Your task to perform on an android device: move a message to another label in the gmail app Image 0: 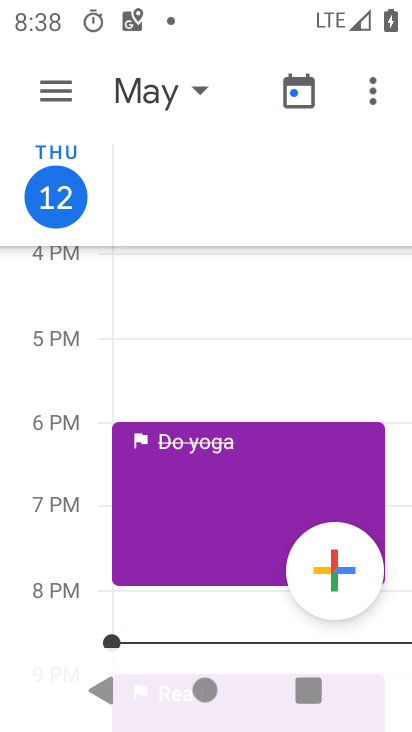
Step 0: drag from (212, 519) to (206, 237)
Your task to perform on an android device: move a message to another label in the gmail app Image 1: 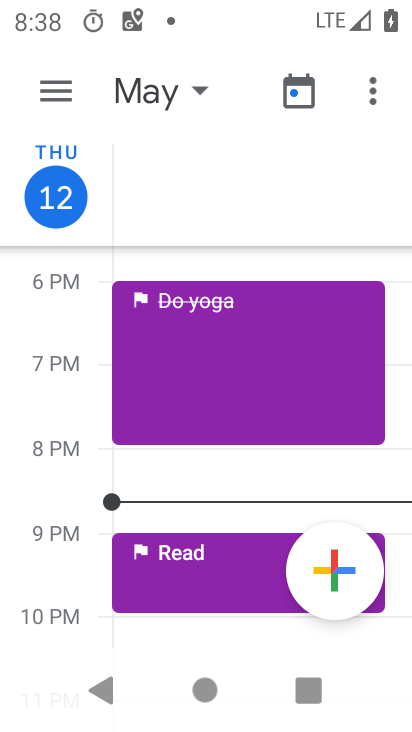
Step 1: press home button
Your task to perform on an android device: move a message to another label in the gmail app Image 2: 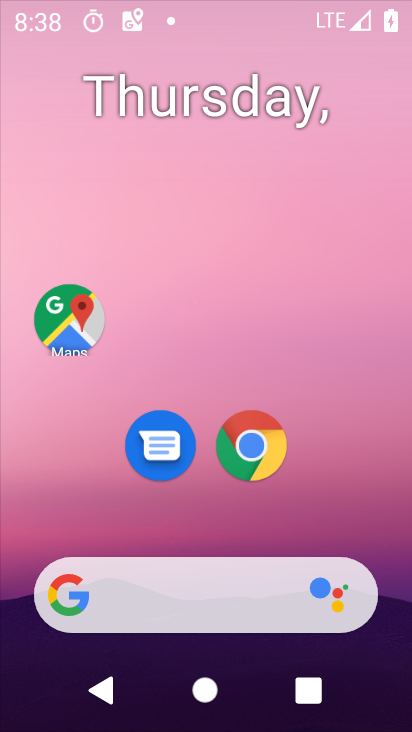
Step 2: drag from (205, 561) to (256, 139)
Your task to perform on an android device: move a message to another label in the gmail app Image 3: 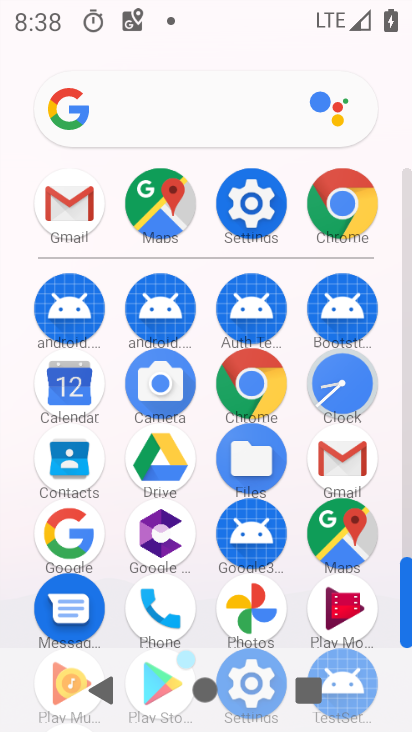
Step 3: click (337, 445)
Your task to perform on an android device: move a message to another label in the gmail app Image 4: 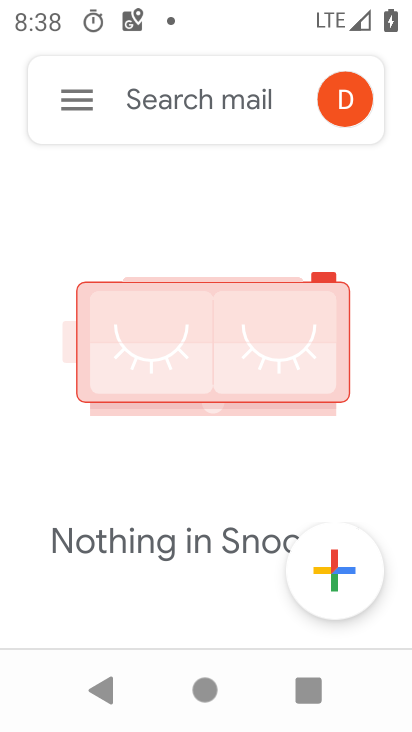
Step 4: click (93, 112)
Your task to perform on an android device: move a message to another label in the gmail app Image 5: 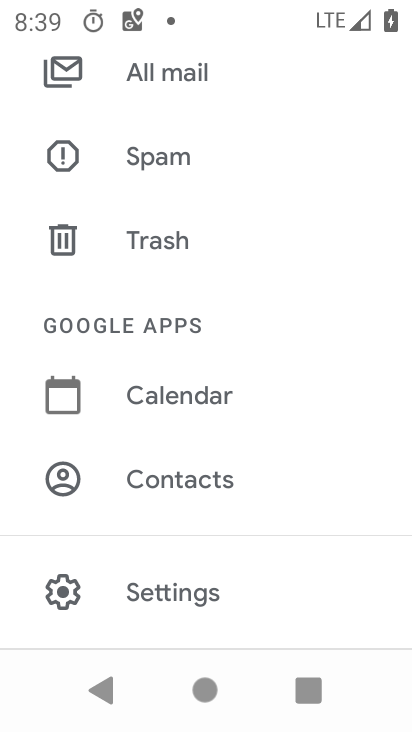
Step 5: task complete